Your task to perform on an android device: Search for Italian restaurants on Maps Image 0: 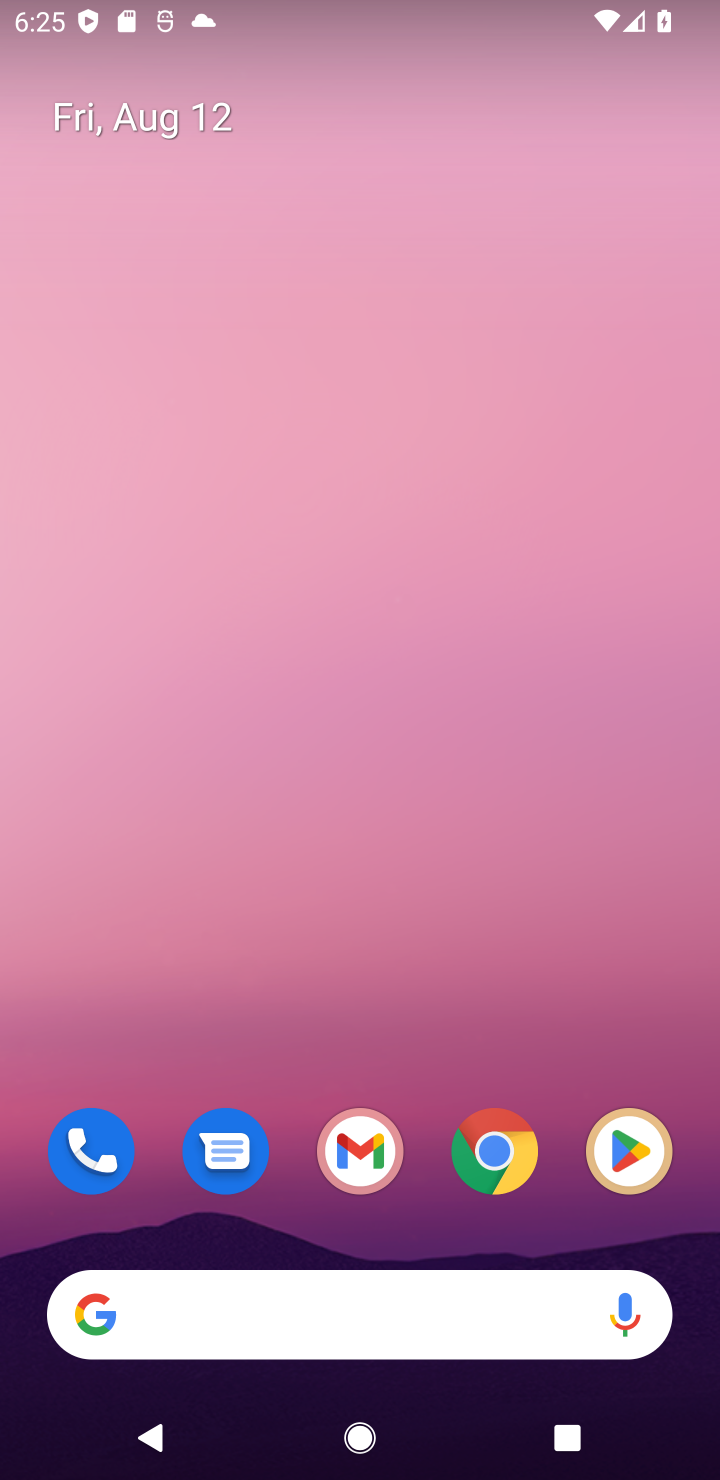
Step 0: drag from (475, 1017) to (232, 9)
Your task to perform on an android device: Search for Italian restaurants on Maps Image 1: 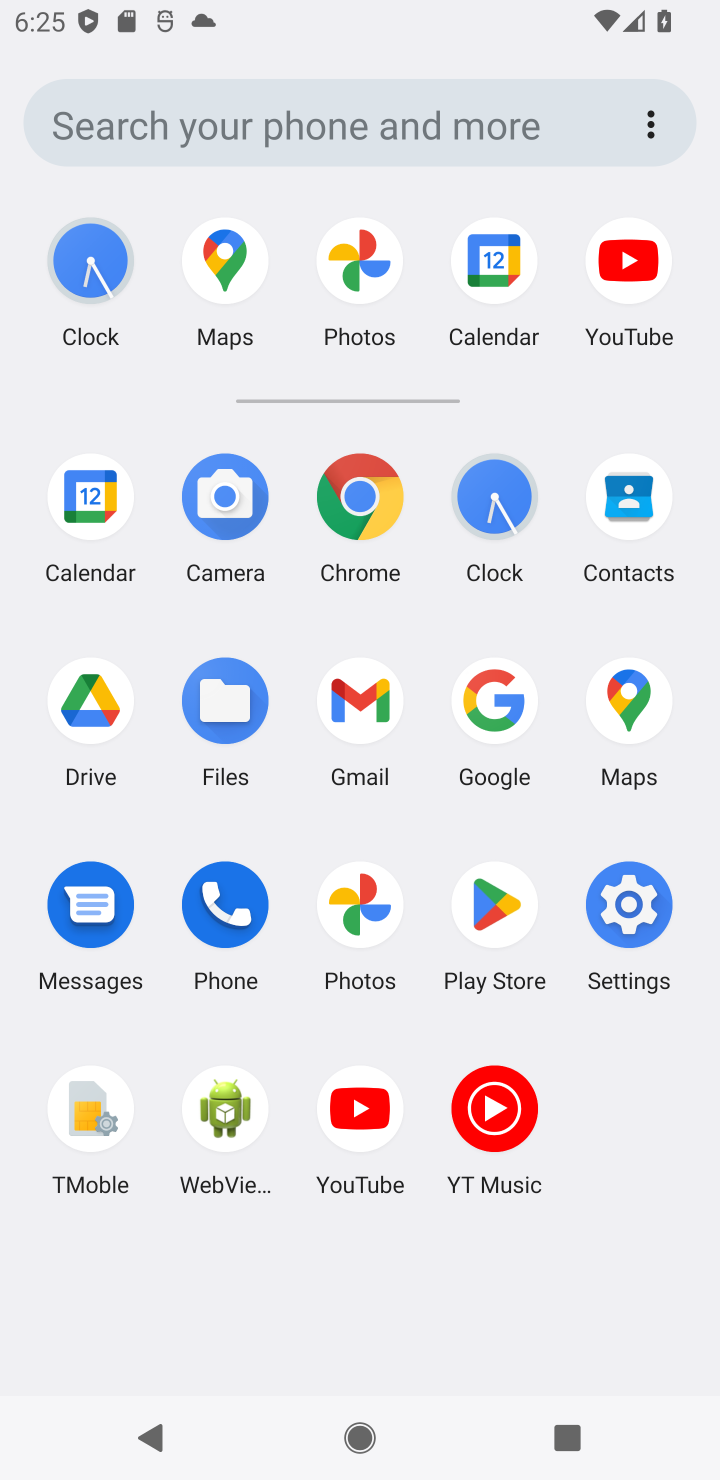
Step 1: click (650, 685)
Your task to perform on an android device: Search for Italian restaurants on Maps Image 2: 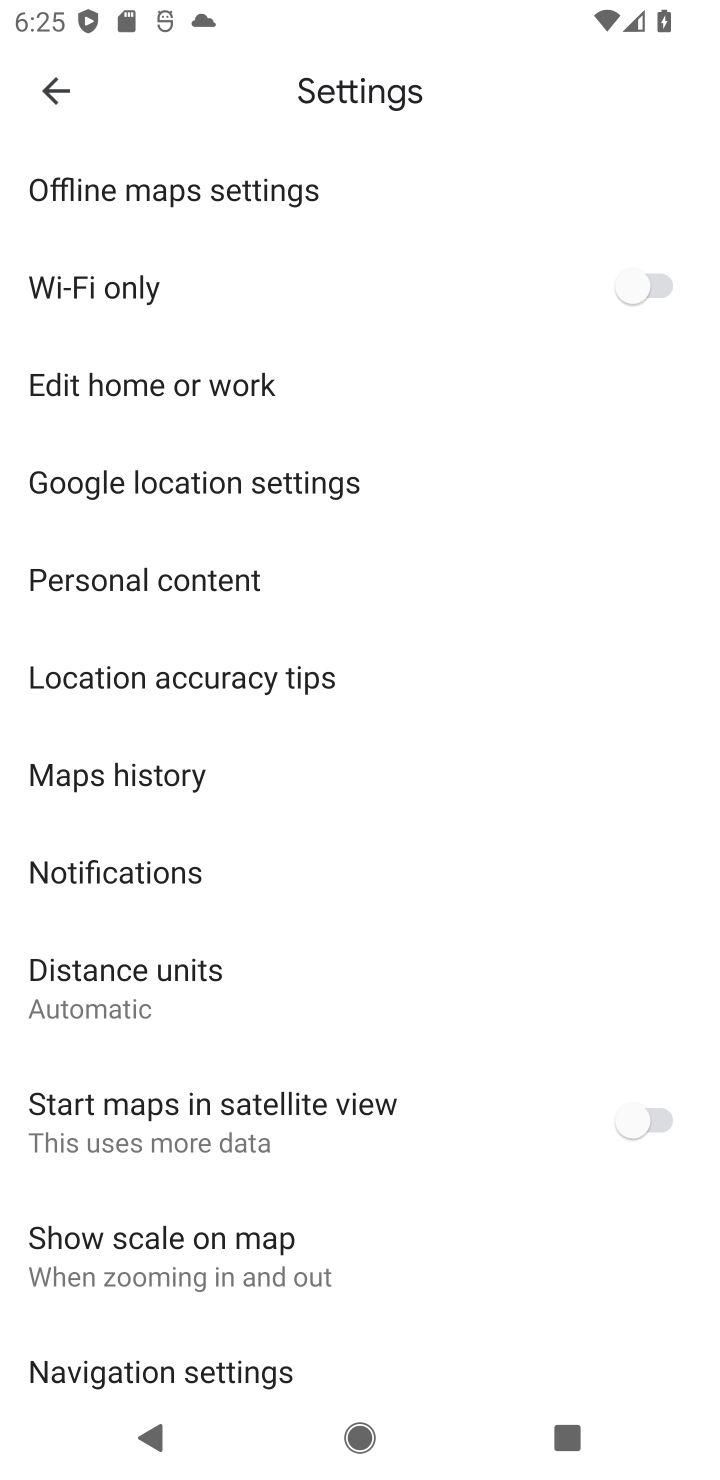
Step 2: click (72, 93)
Your task to perform on an android device: Search for Italian restaurants on Maps Image 3: 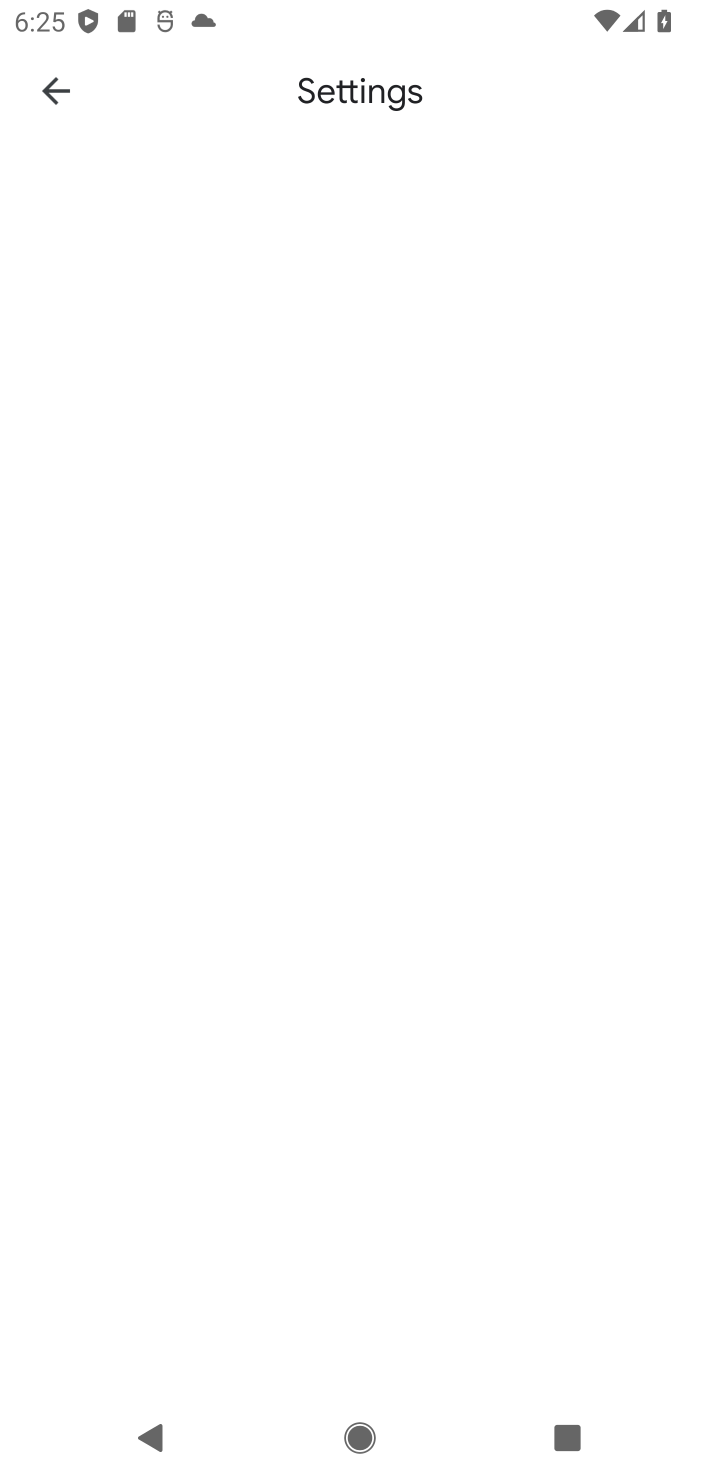
Step 3: press back button
Your task to perform on an android device: Search for Italian restaurants on Maps Image 4: 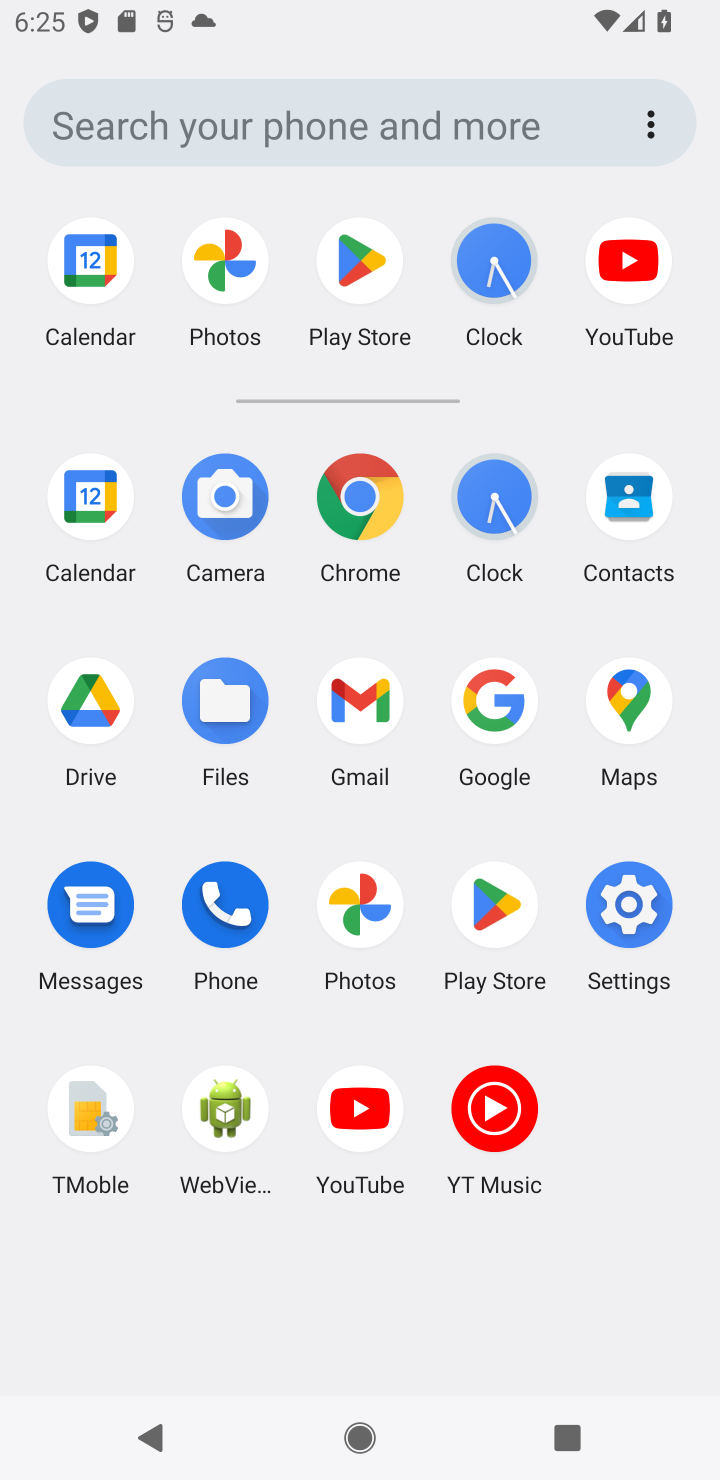
Step 4: click (624, 685)
Your task to perform on an android device: Search for Italian restaurants on Maps Image 5: 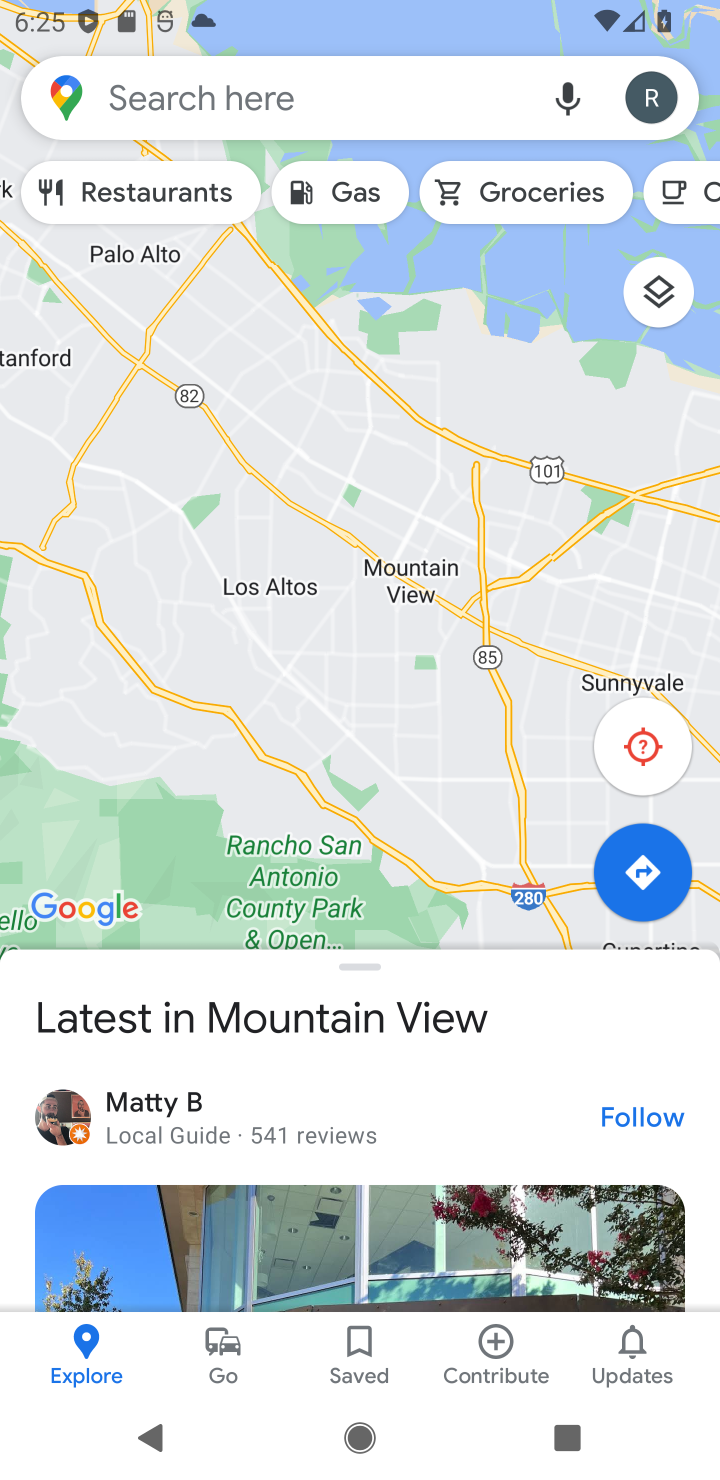
Step 5: click (276, 78)
Your task to perform on an android device: Search for Italian restaurants on Maps Image 6: 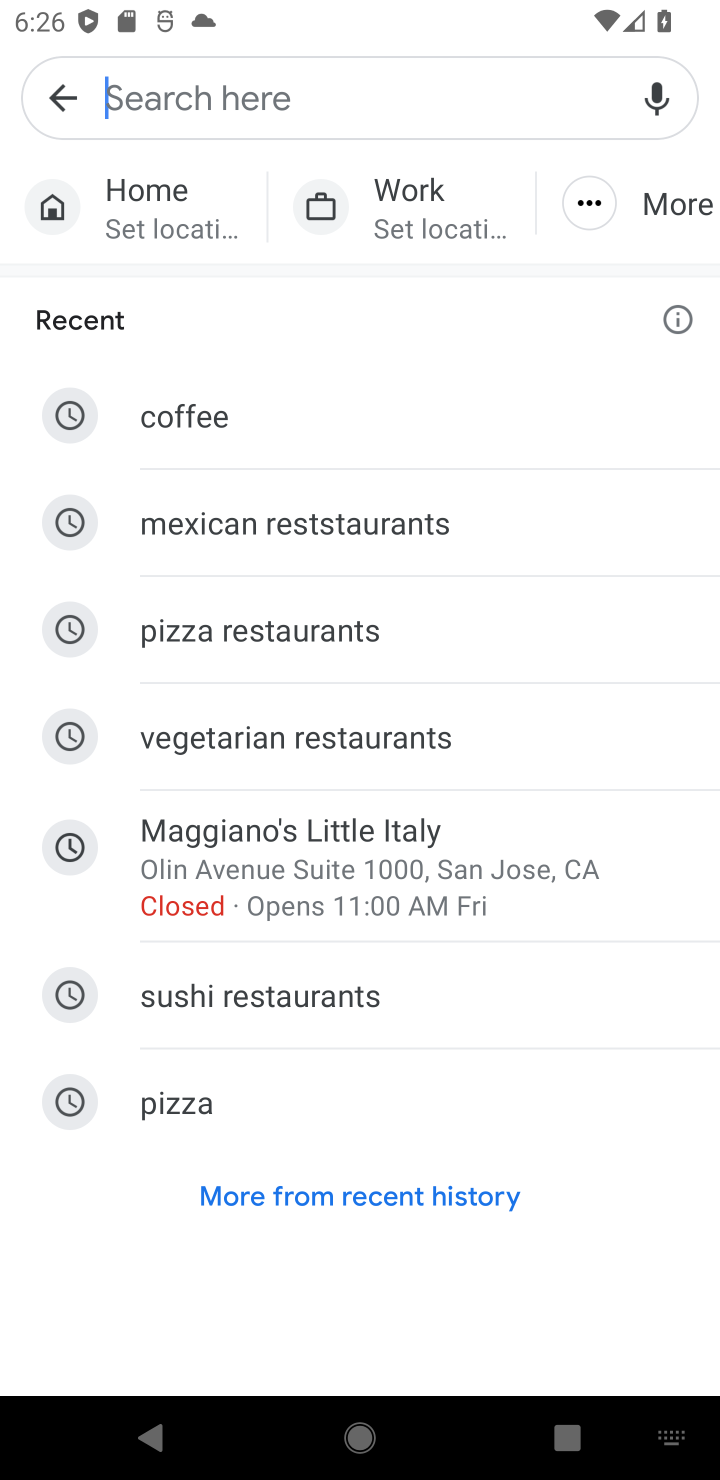
Step 6: type "Italian restaurants"
Your task to perform on an android device: Search for Italian restaurants on Maps Image 7: 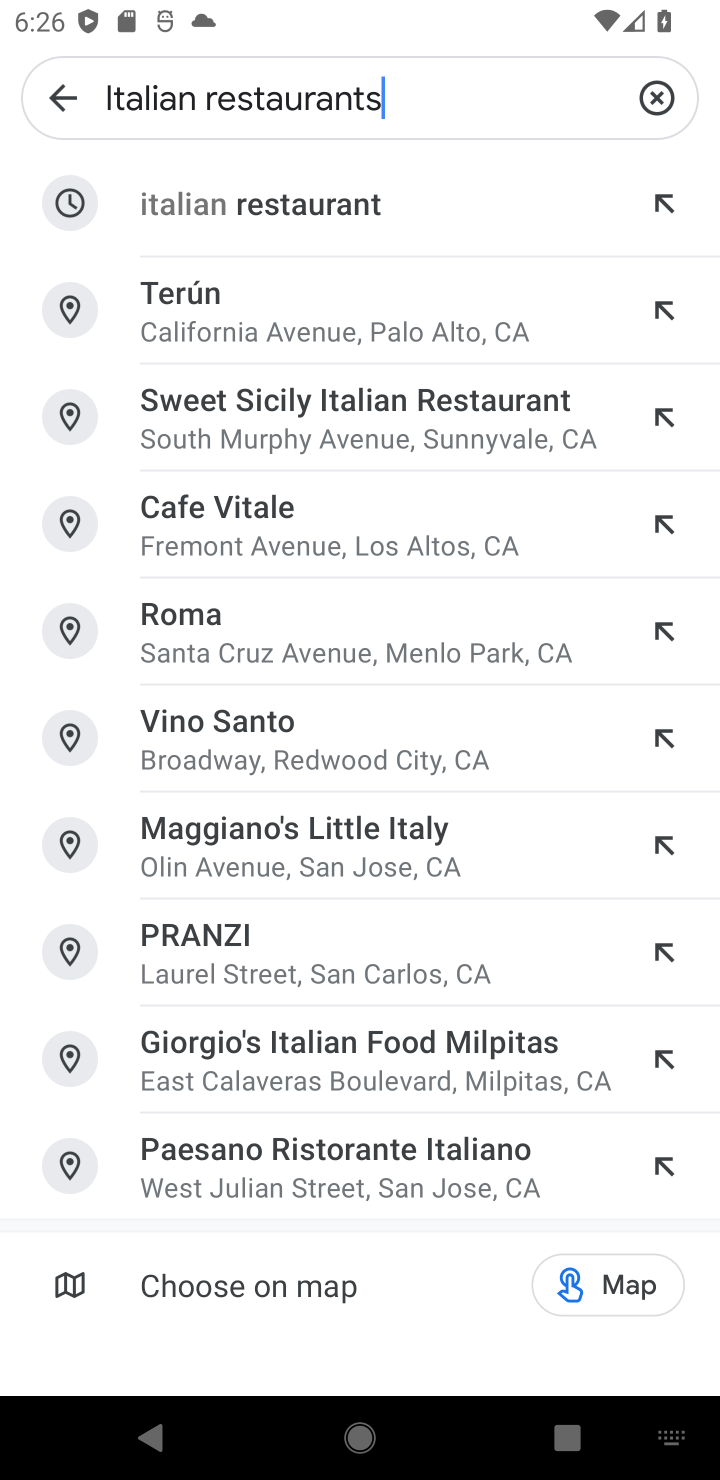
Step 7: press enter
Your task to perform on an android device: Search for Italian restaurants on Maps Image 8: 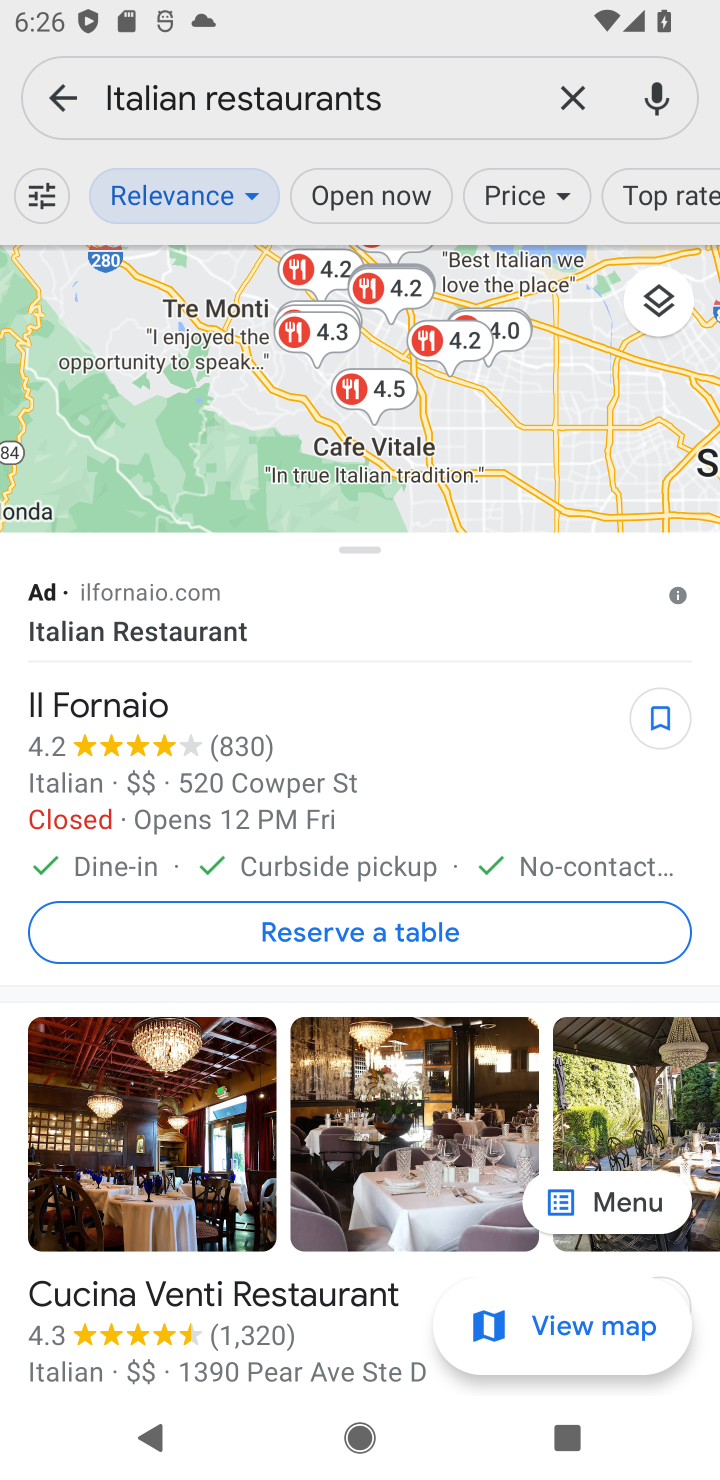
Step 8: task complete